Your task to perform on an android device: toggle notifications settings in the gmail app Image 0: 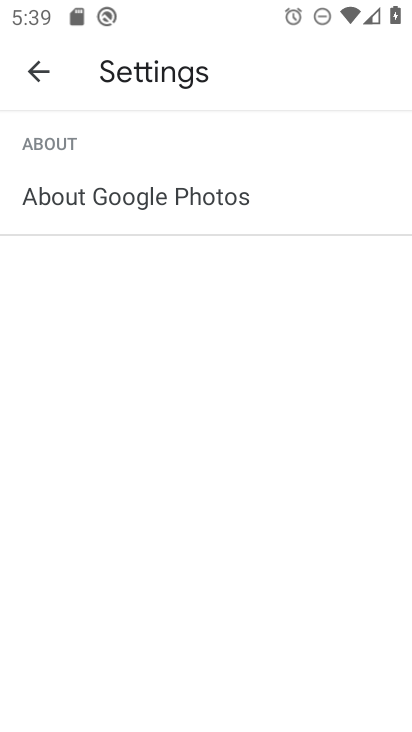
Step 0: press home button
Your task to perform on an android device: toggle notifications settings in the gmail app Image 1: 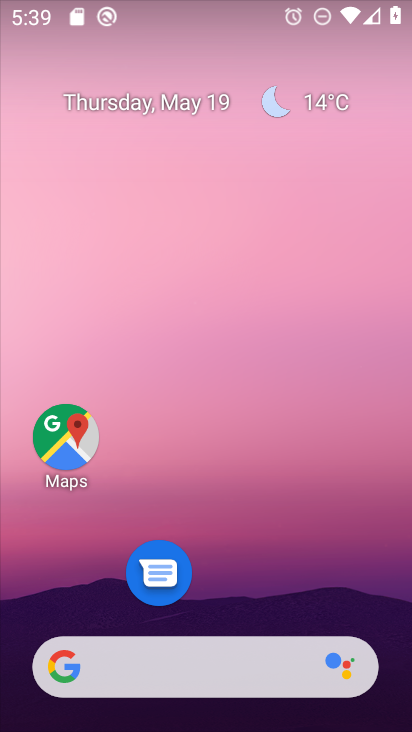
Step 1: drag from (253, 607) to (208, 21)
Your task to perform on an android device: toggle notifications settings in the gmail app Image 2: 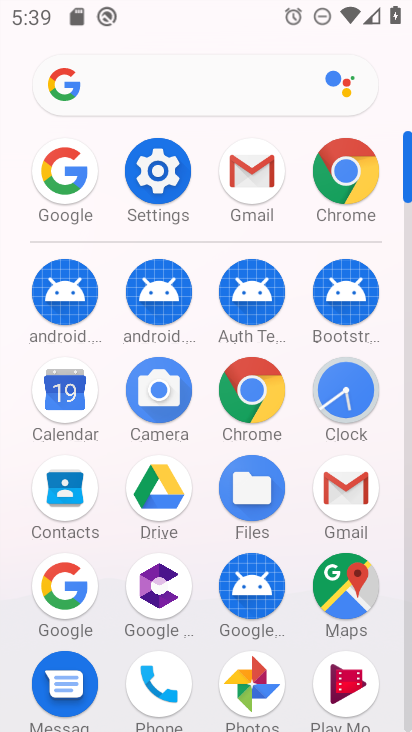
Step 2: click (349, 488)
Your task to perform on an android device: toggle notifications settings in the gmail app Image 3: 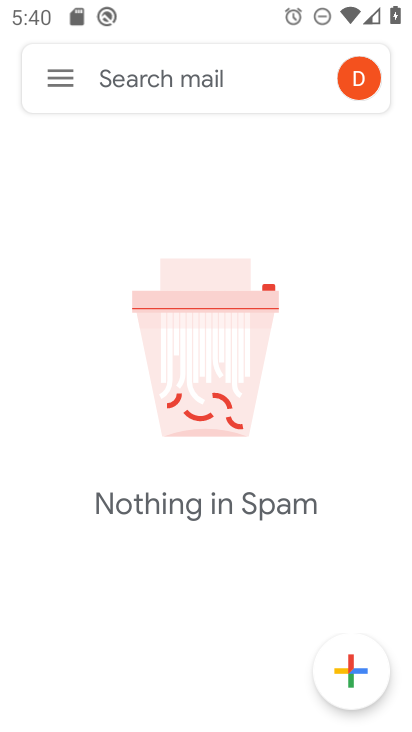
Step 3: click (57, 78)
Your task to perform on an android device: toggle notifications settings in the gmail app Image 4: 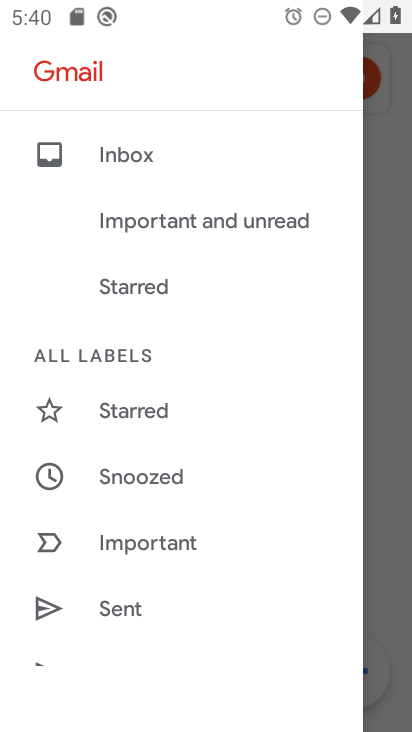
Step 4: drag from (175, 587) to (175, 266)
Your task to perform on an android device: toggle notifications settings in the gmail app Image 5: 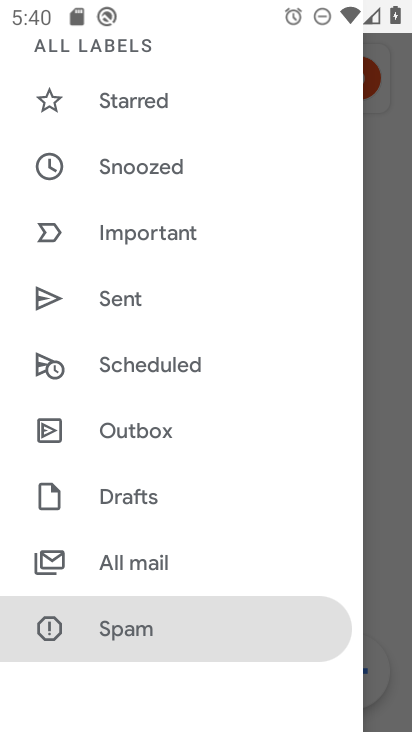
Step 5: click (183, 205)
Your task to perform on an android device: toggle notifications settings in the gmail app Image 6: 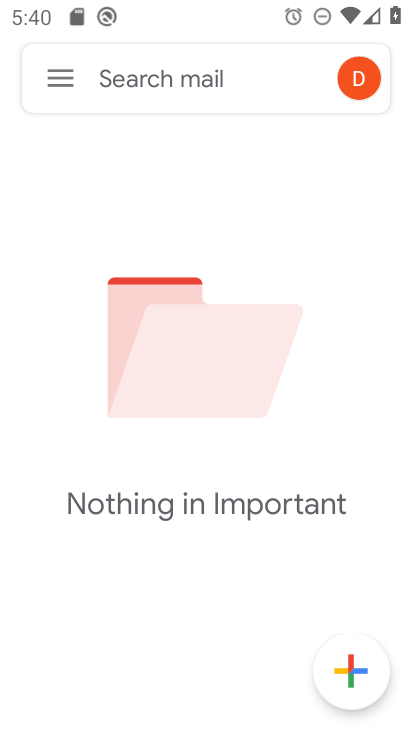
Step 6: click (58, 78)
Your task to perform on an android device: toggle notifications settings in the gmail app Image 7: 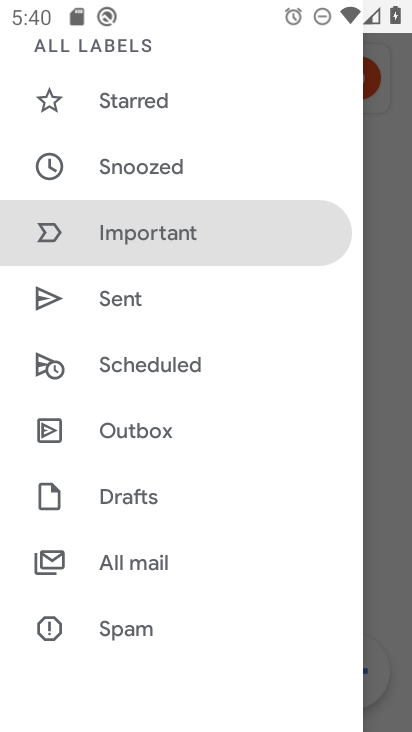
Step 7: drag from (179, 556) to (182, 55)
Your task to perform on an android device: toggle notifications settings in the gmail app Image 8: 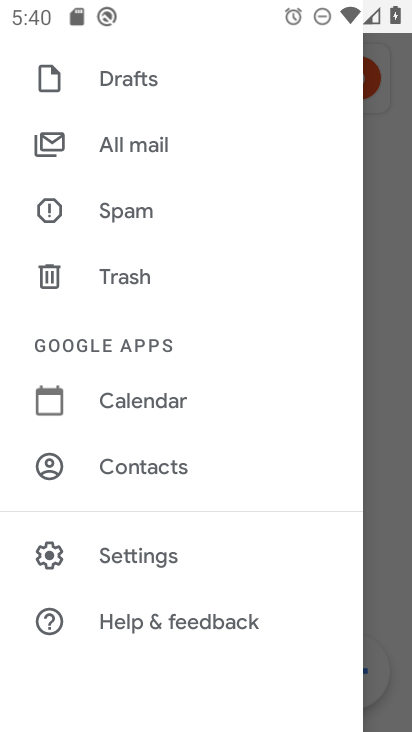
Step 8: click (154, 569)
Your task to perform on an android device: toggle notifications settings in the gmail app Image 9: 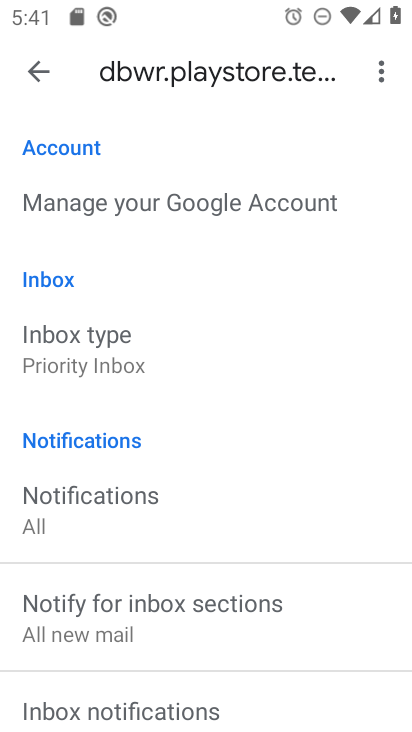
Step 9: click (127, 547)
Your task to perform on an android device: toggle notifications settings in the gmail app Image 10: 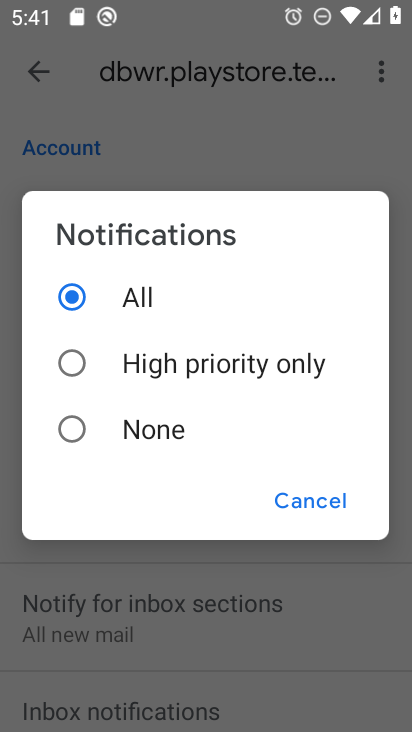
Step 10: click (80, 443)
Your task to perform on an android device: toggle notifications settings in the gmail app Image 11: 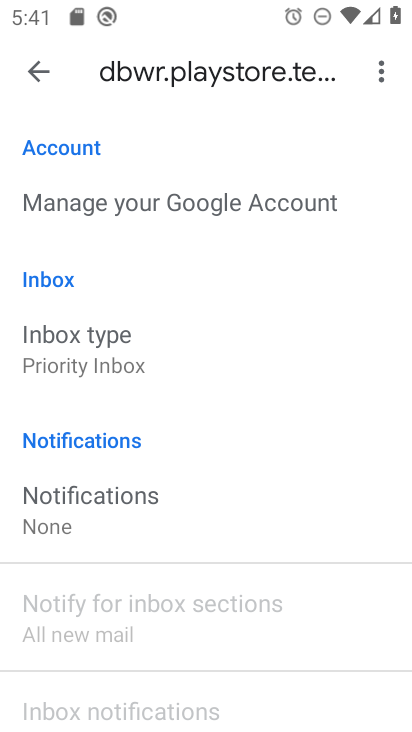
Step 11: task complete